Your task to perform on an android device: Go to network settings Image 0: 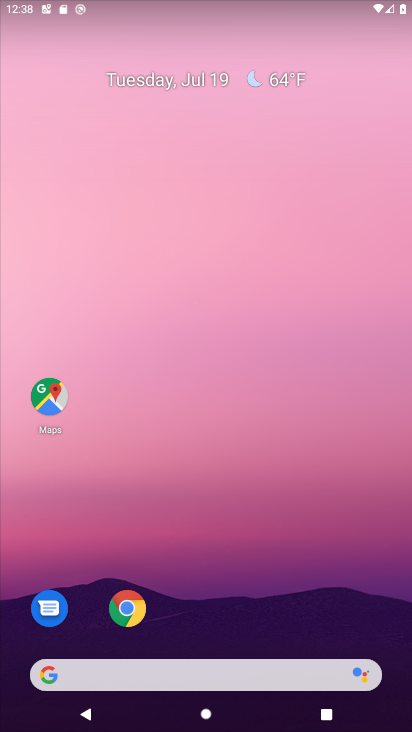
Step 0: drag from (229, 586) to (266, 90)
Your task to perform on an android device: Go to network settings Image 1: 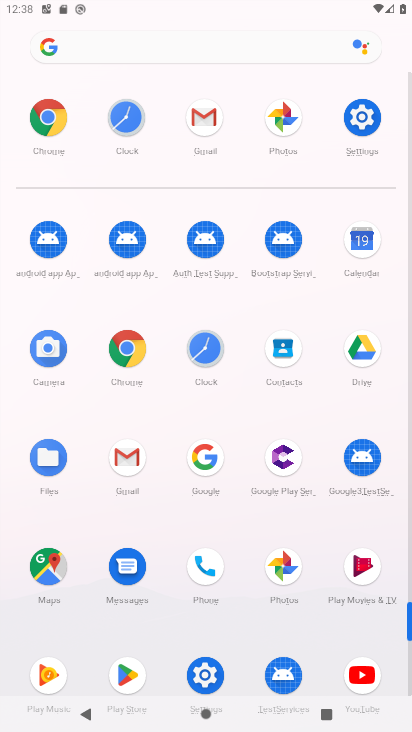
Step 1: click (211, 683)
Your task to perform on an android device: Go to network settings Image 2: 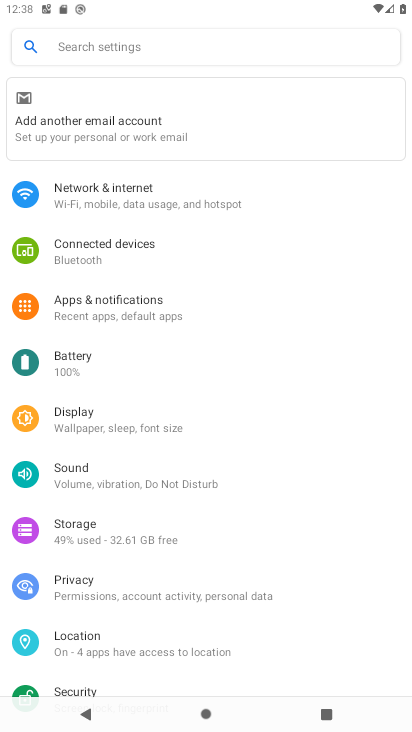
Step 2: click (139, 206)
Your task to perform on an android device: Go to network settings Image 3: 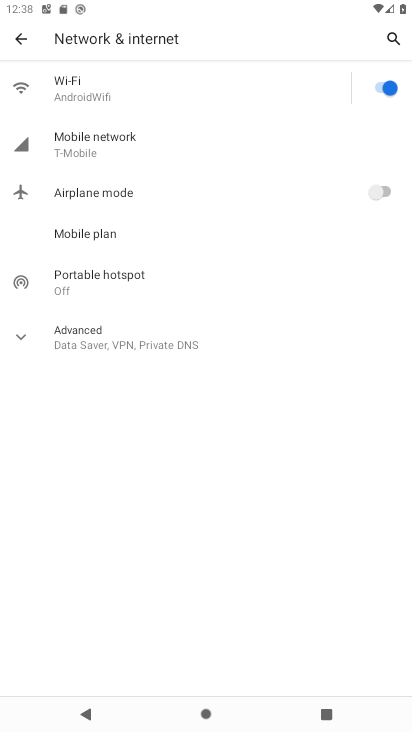
Step 3: click (208, 146)
Your task to perform on an android device: Go to network settings Image 4: 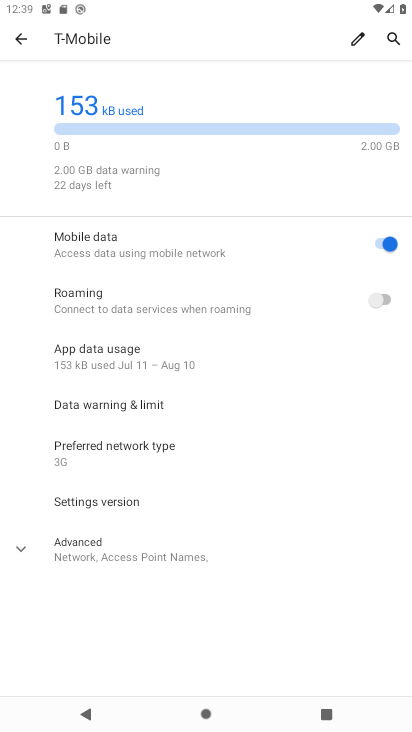
Step 4: task complete